Your task to perform on an android device: What's the weather today? Image 0: 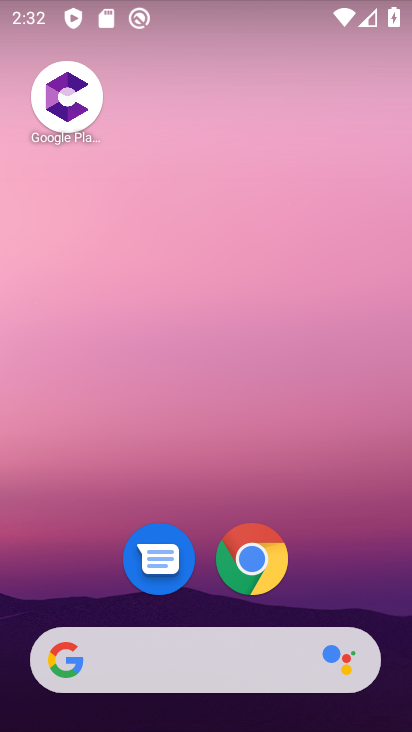
Step 0: drag from (386, 578) to (305, 41)
Your task to perform on an android device: What's the weather today? Image 1: 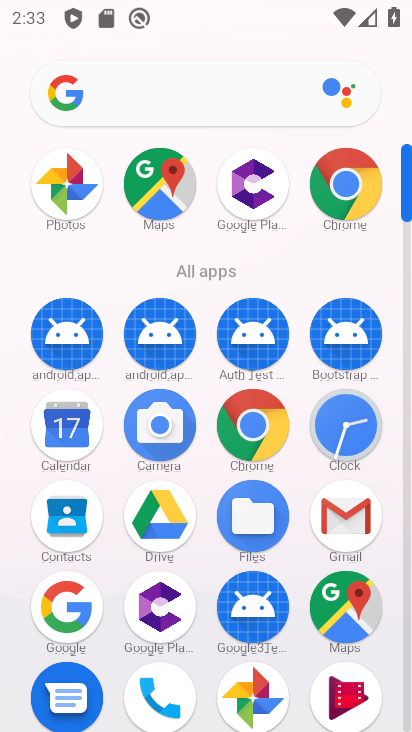
Step 1: click (382, 179)
Your task to perform on an android device: What's the weather today? Image 2: 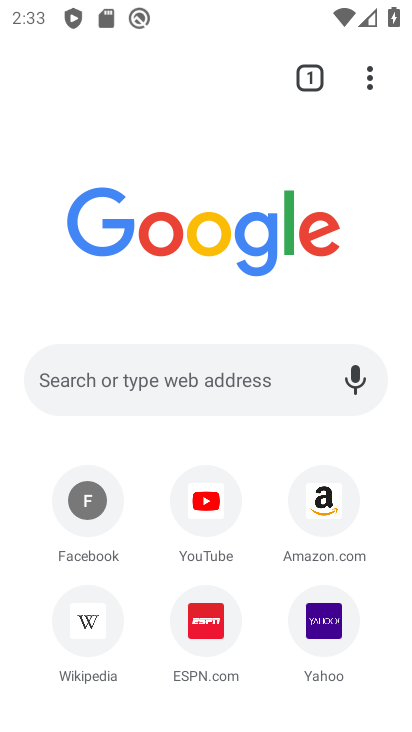
Step 2: click (256, 374)
Your task to perform on an android device: What's the weather today? Image 3: 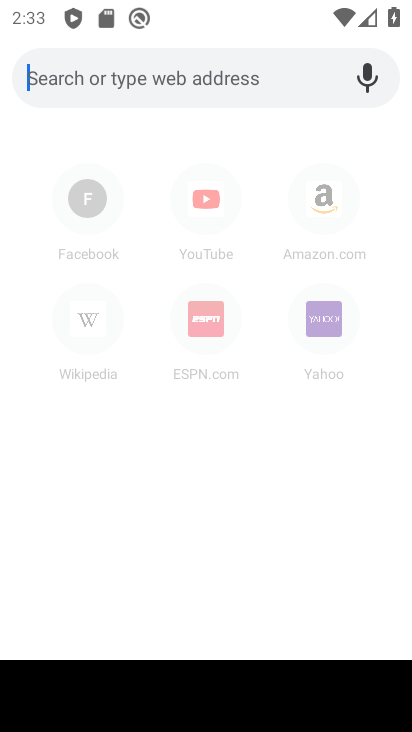
Step 3: type "What's the weather today?"
Your task to perform on an android device: What's the weather today? Image 4: 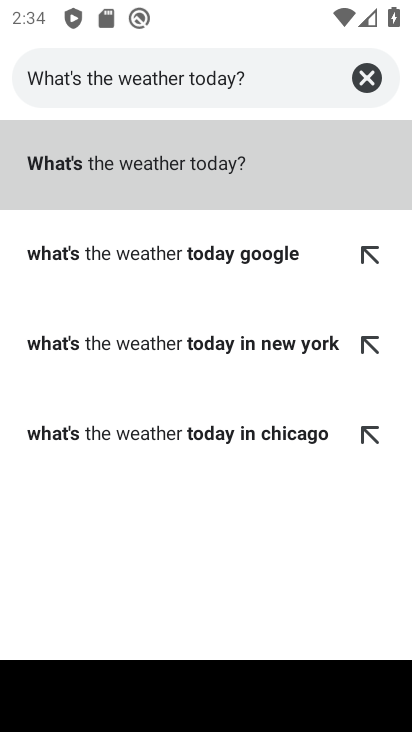
Step 4: click (203, 176)
Your task to perform on an android device: What's the weather today? Image 5: 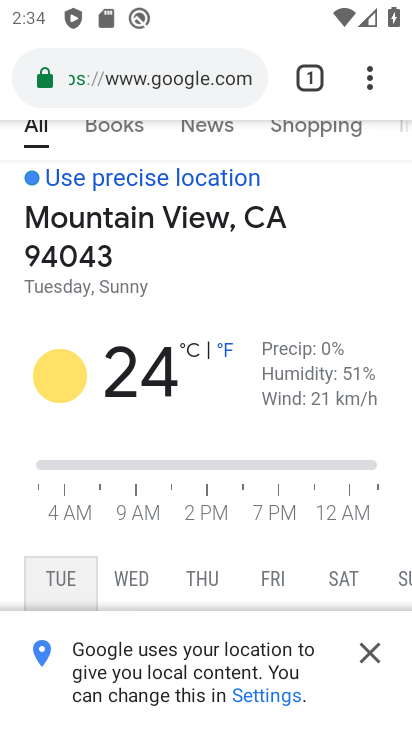
Step 5: task complete